Your task to perform on an android device: clear history in the chrome app Image 0: 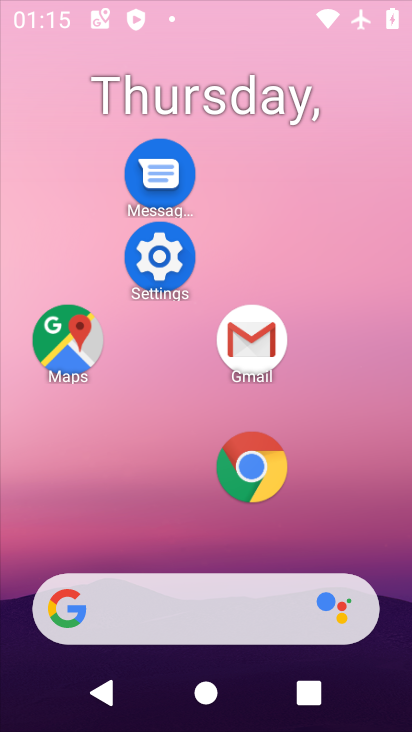
Step 0: click (228, 291)
Your task to perform on an android device: clear history in the chrome app Image 1: 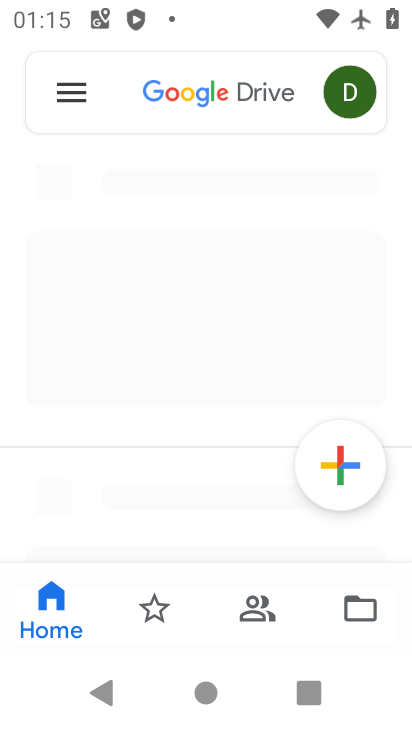
Step 1: drag from (215, 497) to (252, 160)
Your task to perform on an android device: clear history in the chrome app Image 2: 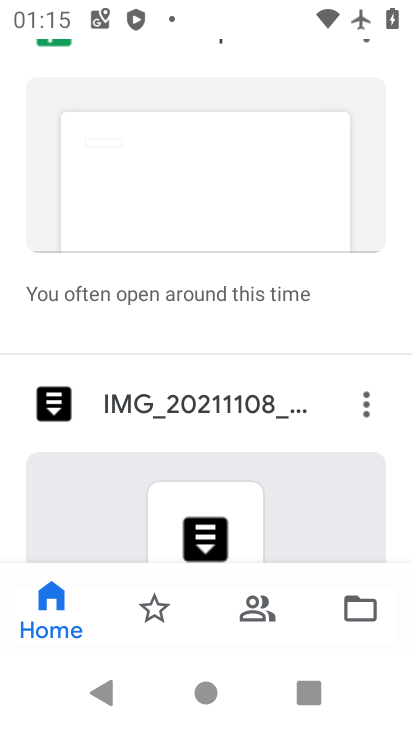
Step 2: drag from (140, 147) to (225, 646)
Your task to perform on an android device: clear history in the chrome app Image 3: 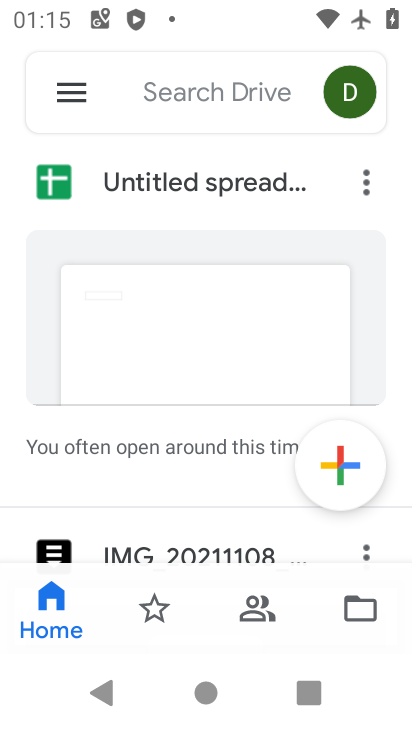
Step 3: press home button
Your task to perform on an android device: clear history in the chrome app Image 4: 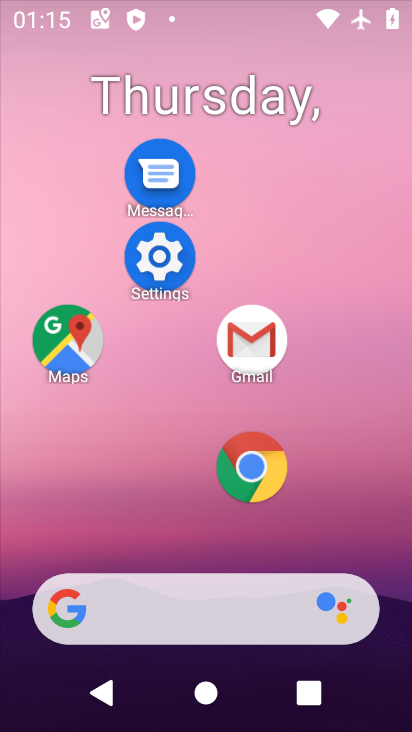
Step 4: drag from (211, 560) to (241, 214)
Your task to perform on an android device: clear history in the chrome app Image 5: 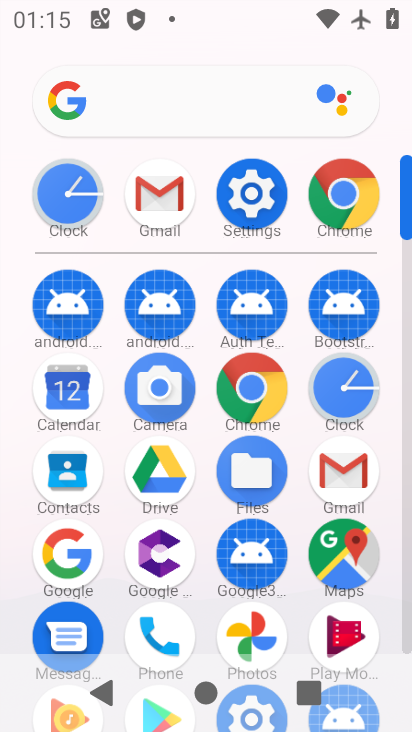
Step 5: click (256, 375)
Your task to perform on an android device: clear history in the chrome app Image 6: 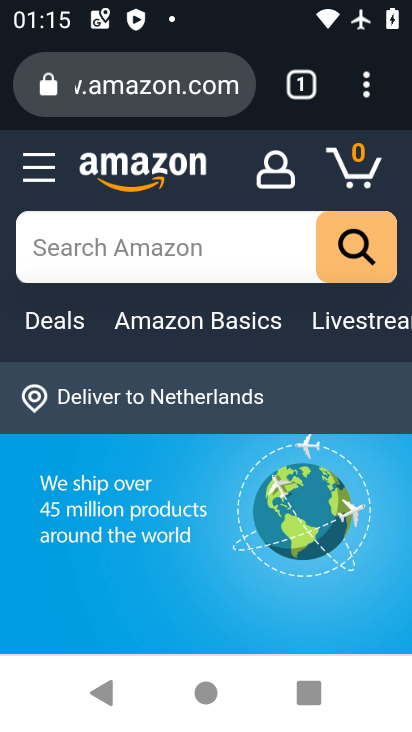
Step 6: drag from (368, 87) to (143, 470)
Your task to perform on an android device: clear history in the chrome app Image 7: 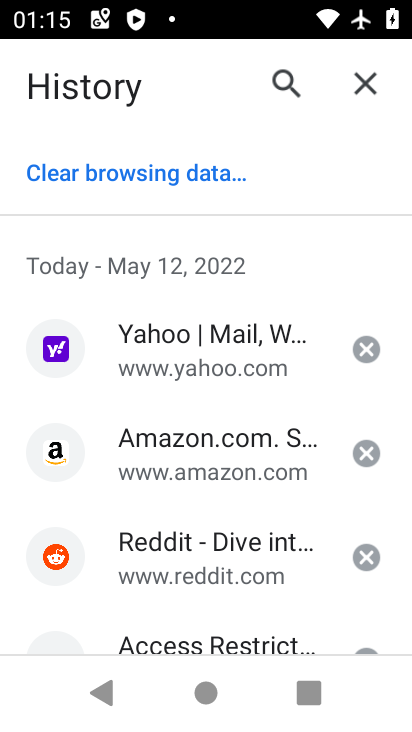
Step 7: click (89, 186)
Your task to perform on an android device: clear history in the chrome app Image 8: 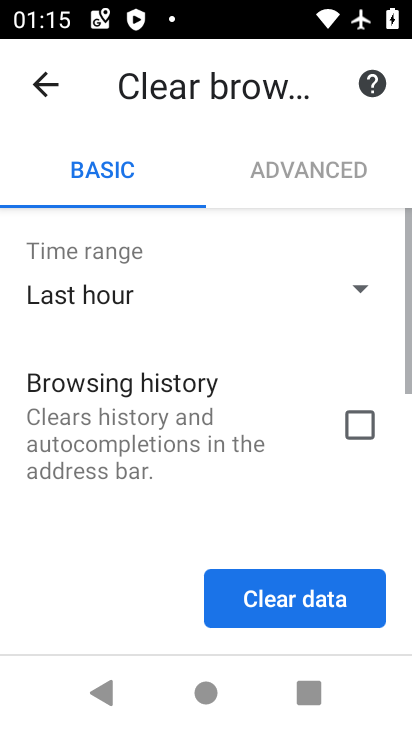
Step 8: click (279, 578)
Your task to perform on an android device: clear history in the chrome app Image 9: 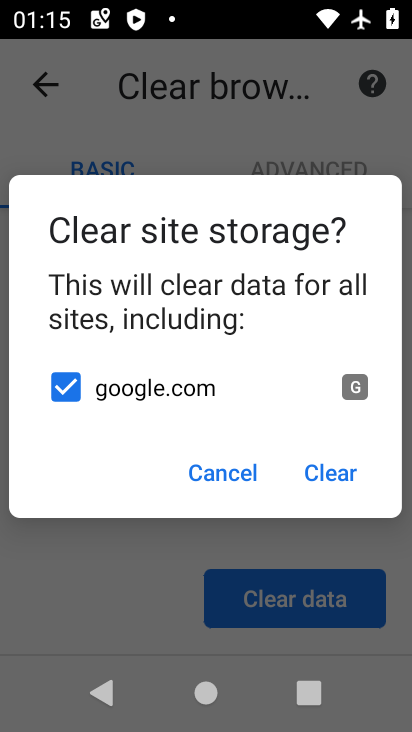
Step 9: click (204, 473)
Your task to perform on an android device: clear history in the chrome app Image 10: 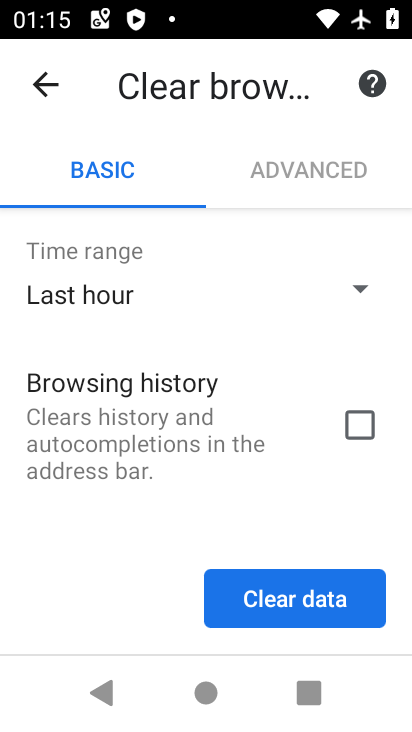
Step 10: click (346, 386)
Your task to perform on an android device: clear history in the chrome app Image 11: 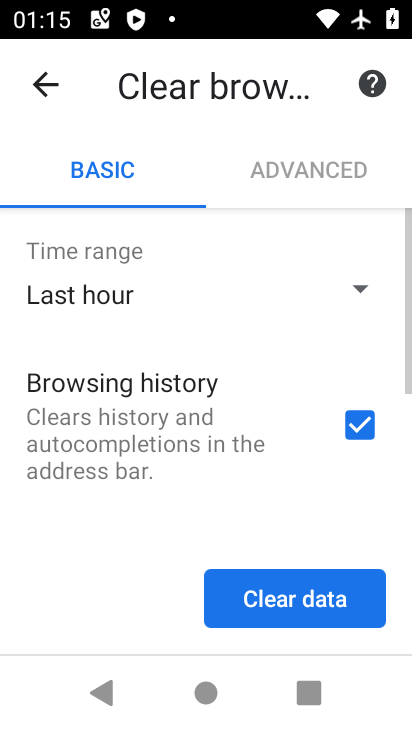
Step 11: click (269, 598)
Your task to perform on an android device: clear history in the chrome app Image 12: 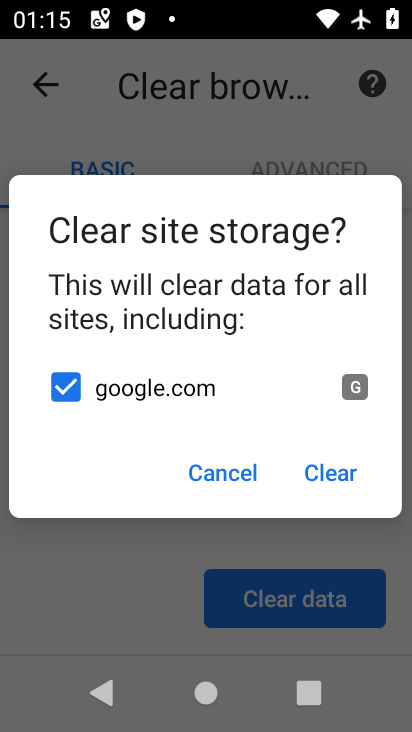
Step 12: click (329, 469)
Your task to perform on an android device: clear history in the chrome app Image 13: 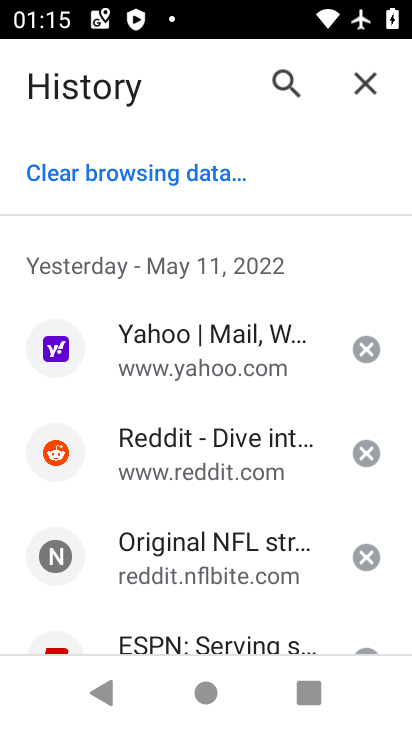
Step 13: task complete